Your task to perform on an android device: turn on improve location accuracy Image 0: 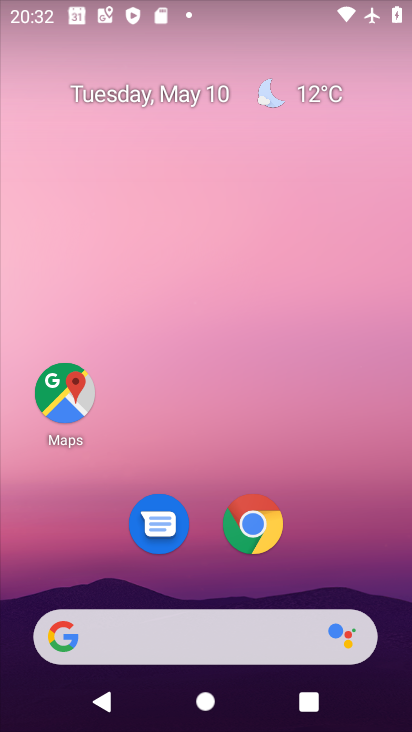
Step 0: drag from (349, 530) to (292, 31)
Your task to perform on an android device: turn on improve location accuracy Image 1: 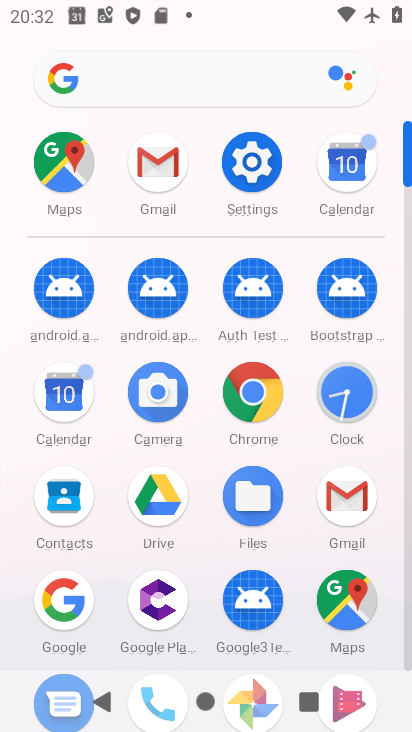
Step 1: click (259, 148)
Your task to perform on an android device: turn on improve location accuracy Image 2: 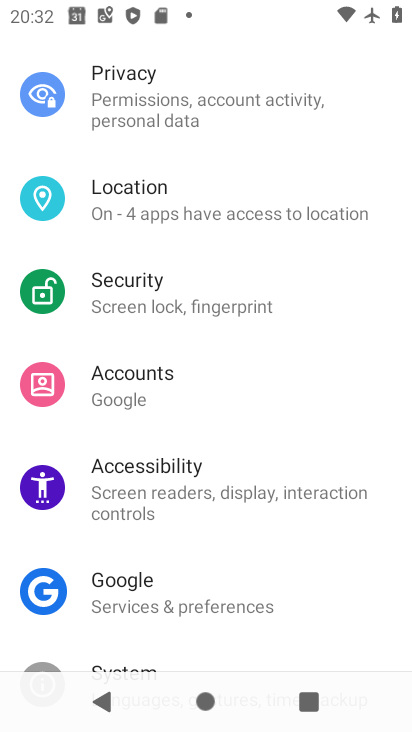
Step 2: click (186, 201)
Your task to perform on an android device: turn on improve location accuracy Image 3: 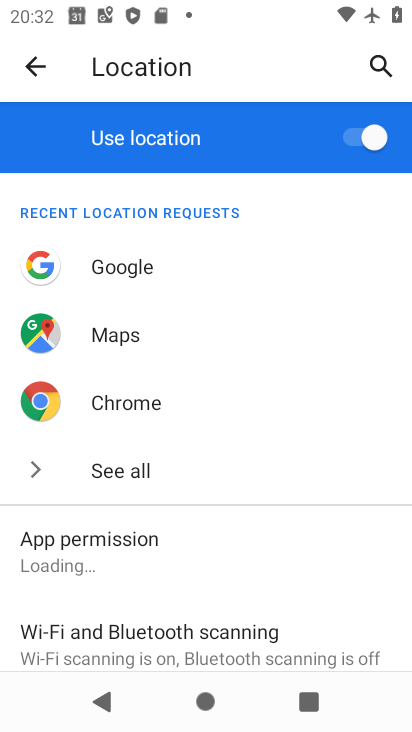
Step 3: drag from (206, 529) to (207, 181)
Your task to perform on an android device: turn on improve location accuracy Image 4: 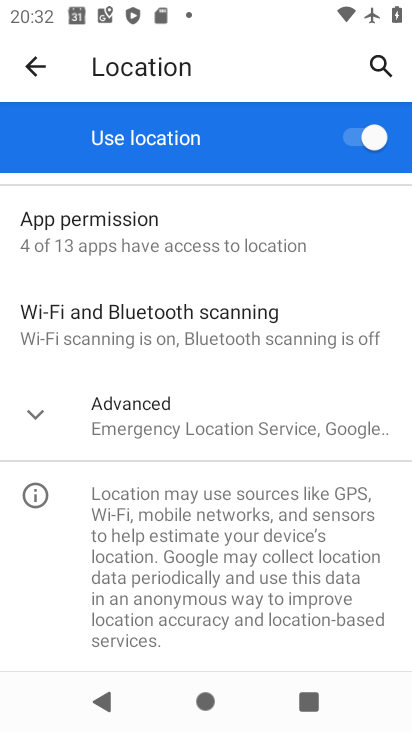
Step 4: click (37, 413)
Your task to perform on an android device: turn on improve location accuracy Image 5: 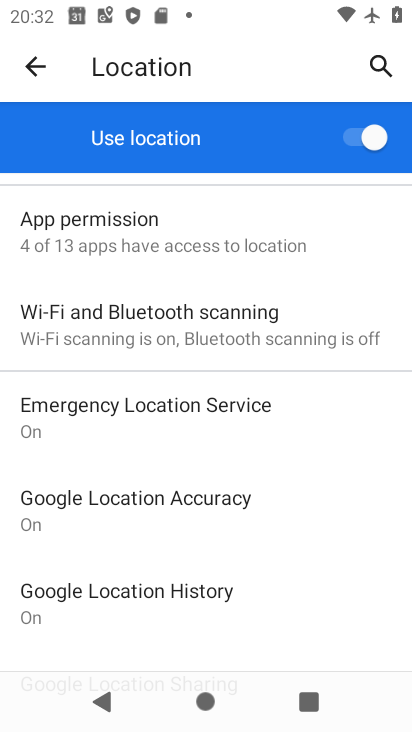
Step 5: task complete